Your task to perform on an android device: What's the weather going to be tomorrow? Image 0: 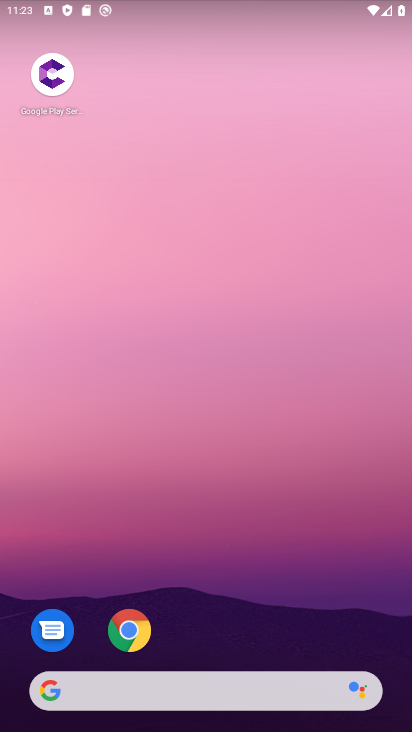
Step 0: drag from (8, 272) to (360, 303)
Your task to perform on an android device: What's the weather going to be tomorrow? Image 1: 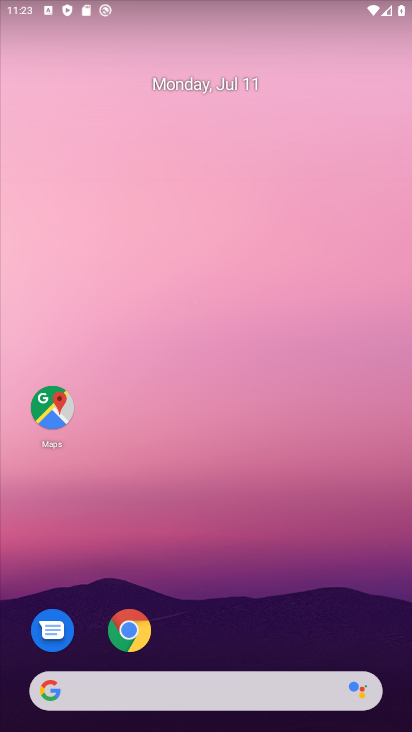
Step 1: task complete